Your task to perform on an android device: change the clock display to analog Image 0: 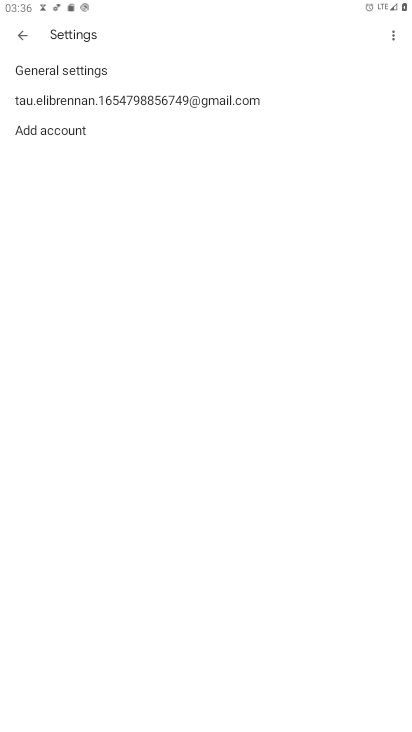
Step 0: press home button
Your task to perform on an android device: change the clock display to analog Image 1: 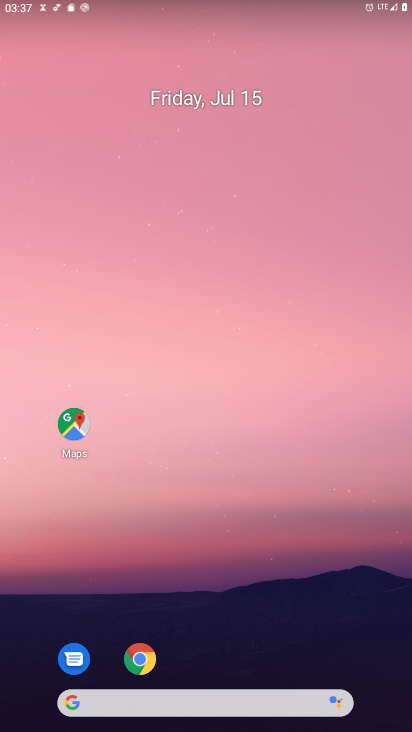
Step 1: drag from (245, 664) to (231, 272)
Your task to perform on an android device: change the clock display to analog Image 2: 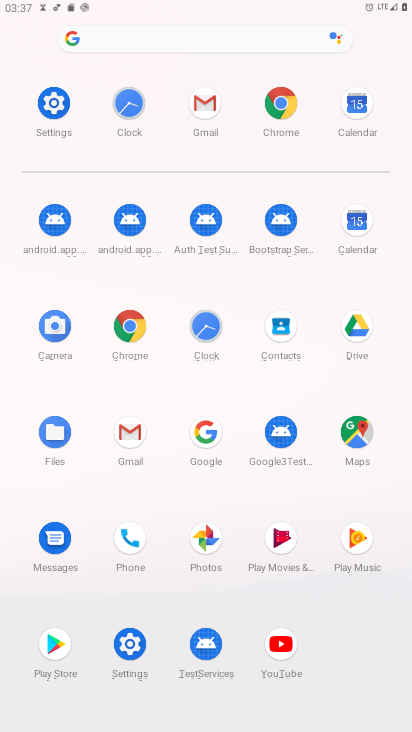
Step 2: click (198, 325)
Your task to perform on an android device: change the clock display to analog Image 3: 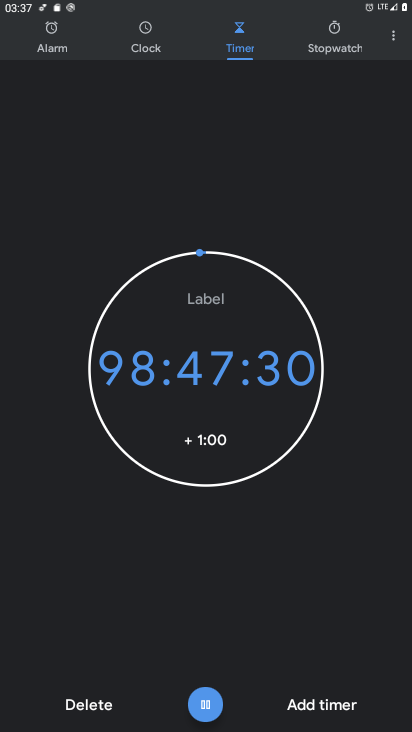
Step 3: click (391, 29)
Your task to perform on an android device: change the clock display to analog Image 4: 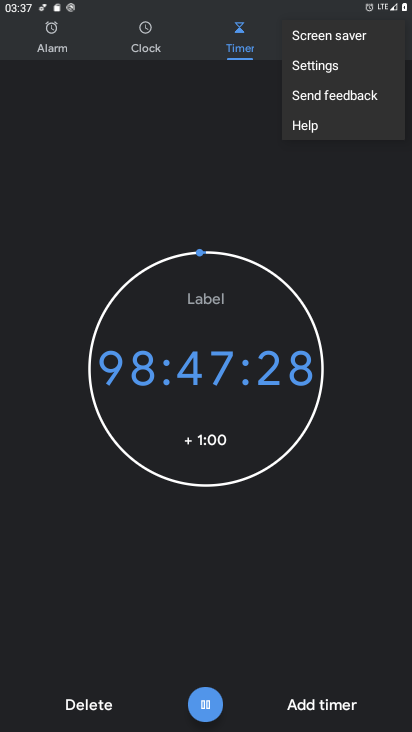
Step 4: click (346, 58)
Your task to perform on an android device: change the clock display to analog Image 5: 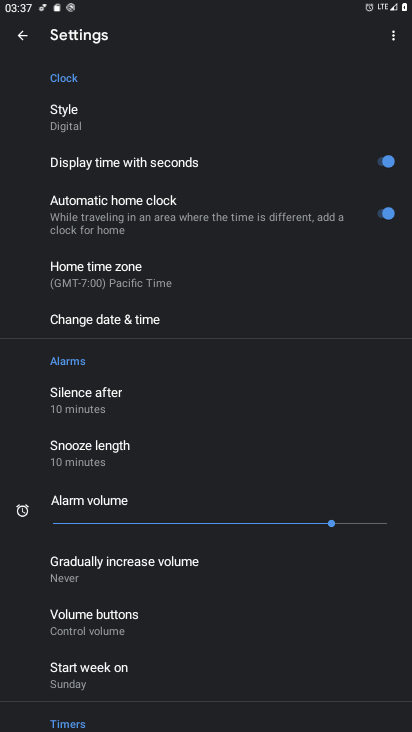
Step 5: click (100, 130)
Your task to perform on an android device: change the clock display to analog Image 6: 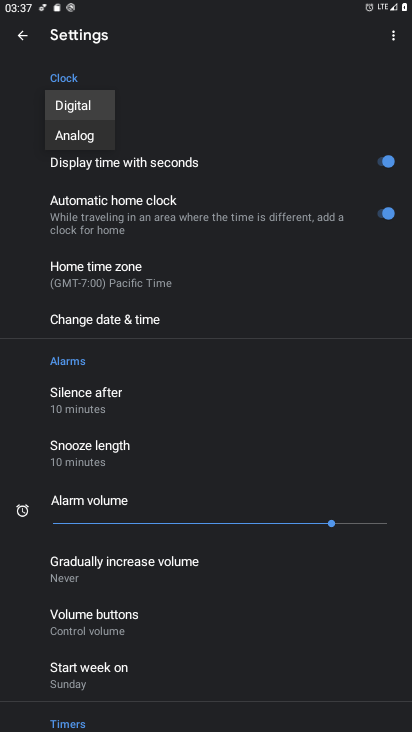
Step 6: click (63, 130)
Your task to perform on an android device: change the clock display to analog Image 7: 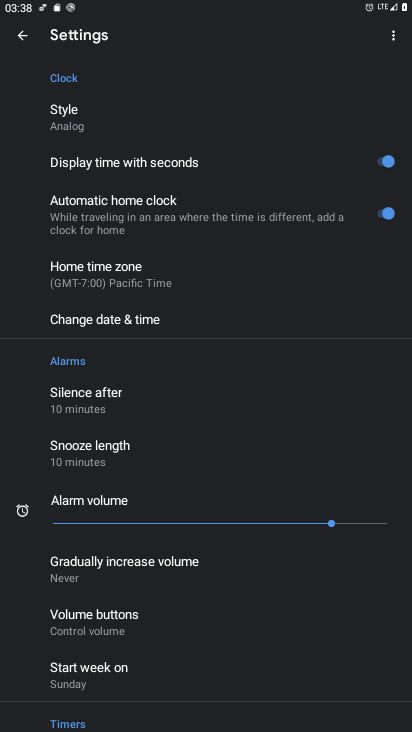
Step 7: task complete